Your task to perform on an android device: empty trash in the gmail app Image 0: 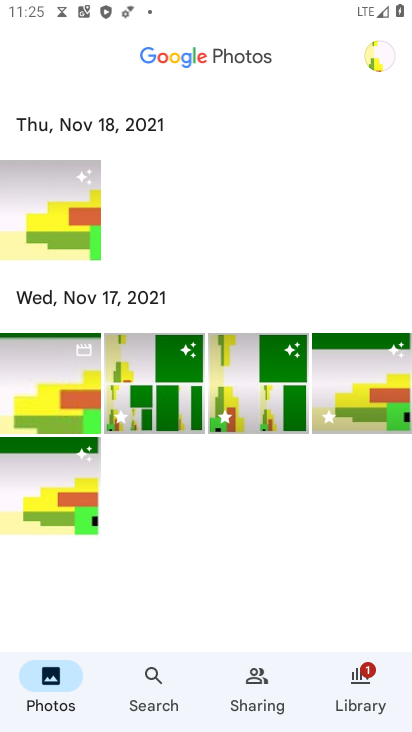
Step 0: press back button
Your task to perform on an android device: empty trash in the gmail app Image 1: 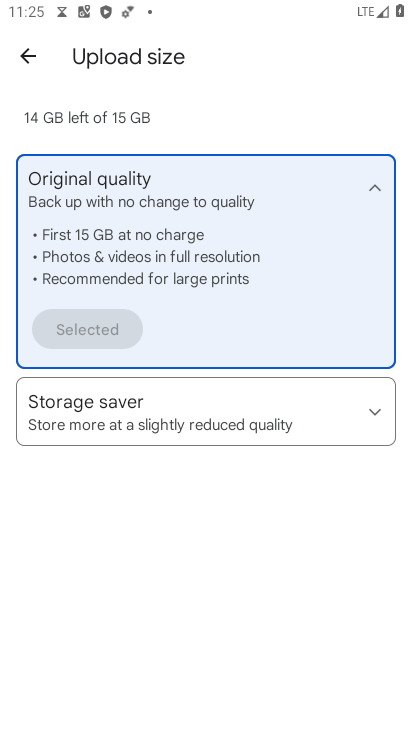
Step 1: press back button
Your task to perform on an android device: empty trash in the gmail app Image 2: 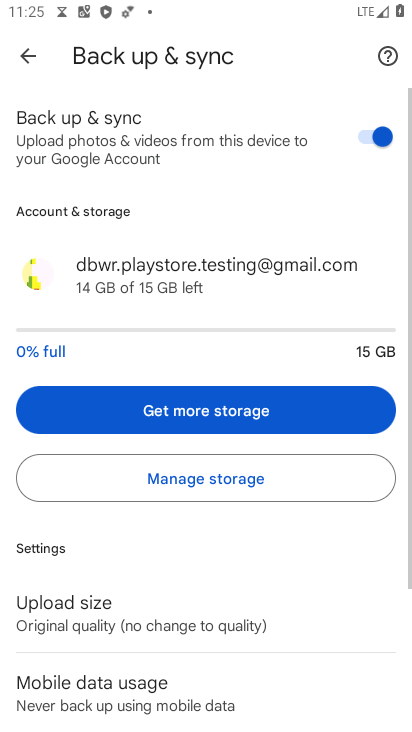
Step 2: press home button
Your task to perform on an android device: empty trash in the gmail app Image 3: 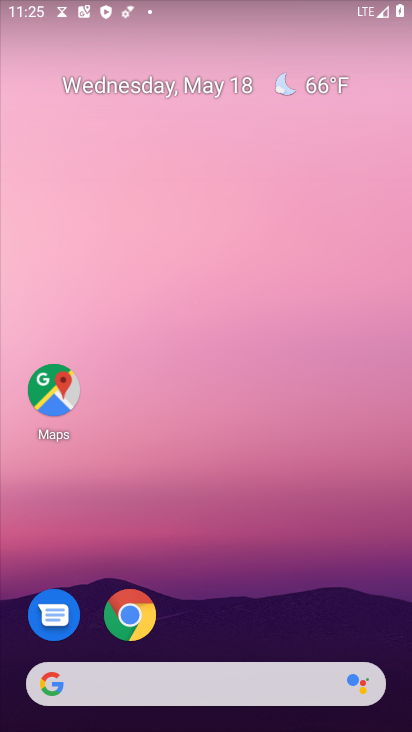
Step 3: drag from (212, 514) to (198, 58)
Your task to perform on an android device: empty trash in the gmail app Image 4: 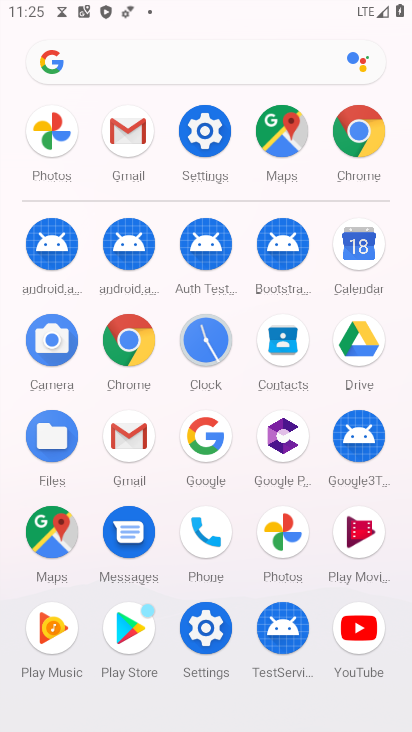
Step 4: drag from (8, 563) to (11, 237)
Your task to perform on an android device: empty trash in the gmail app Image 5: 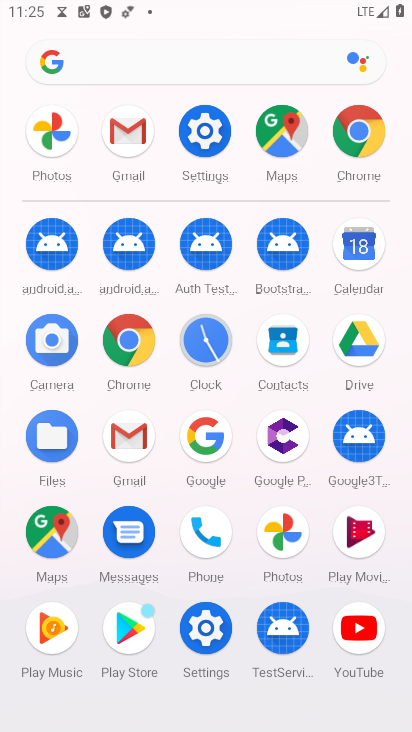
Step 5: click (130, 432)
Your task to perform on an android device: empty trash in the gmail app Image 6: 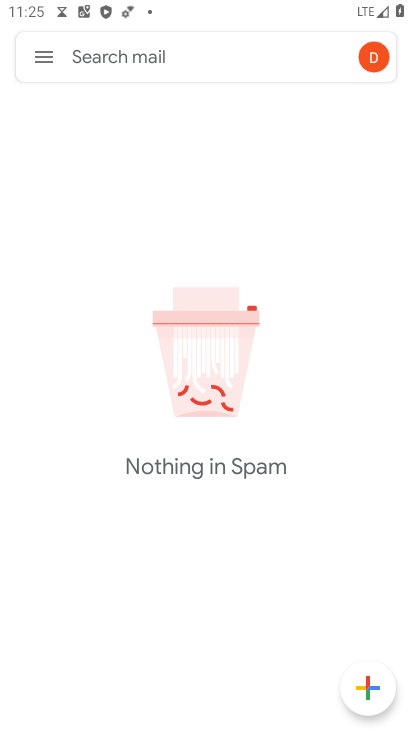
Step 6: click (47, 50)
Your task to perform on an android device: empty trash in the gmail app Image 7: 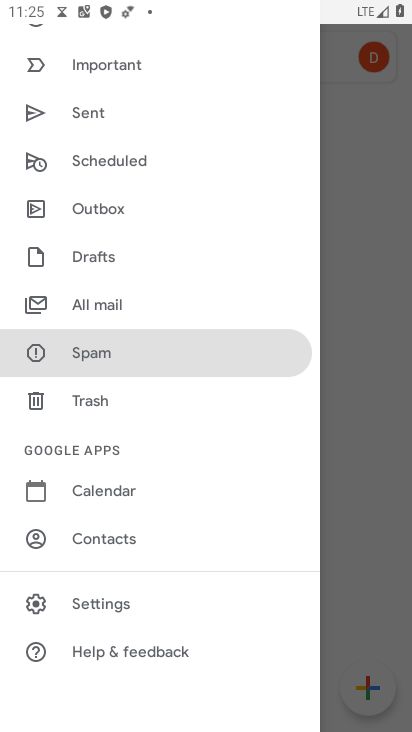
Step 7: click (102, 398)
Your task to perform on an android device: empty trash in the gmail app Image 8: 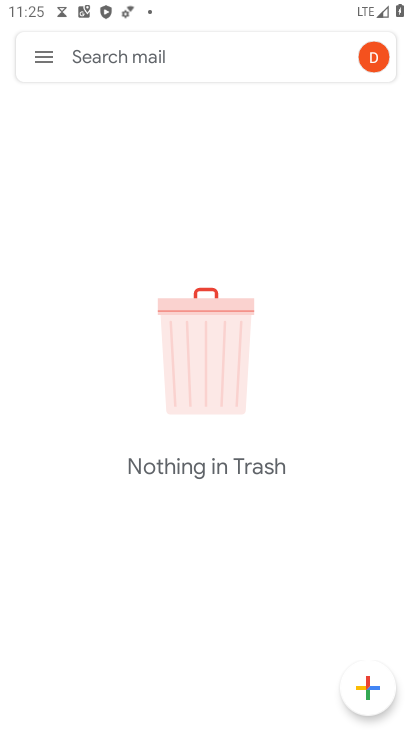
Step 8: task complete